Your task to perform on an android device: choose inbox layout in the gmail app Image 0: 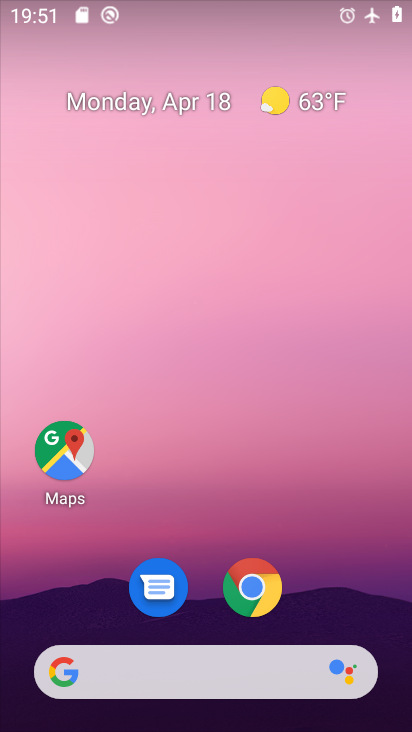
Step 0: drag from (327, 598) to (231, 91)
Your task to perform on an android device: choose inbox layout in the gmail app Image 1: 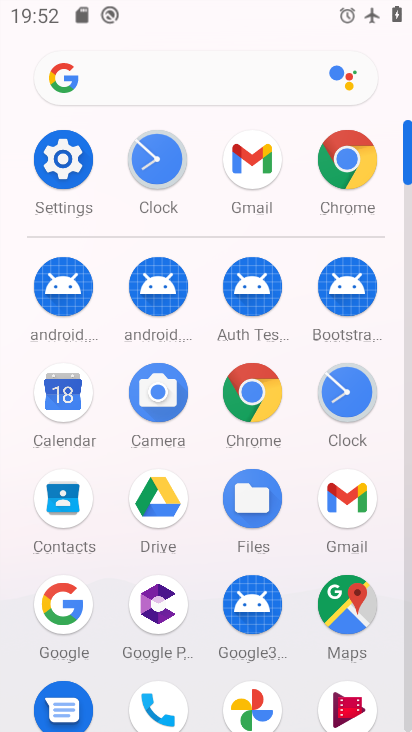
Step 1: click (348, 505)
Your task to perform on an android device: choose inbox layout in the gmail app Image 2: 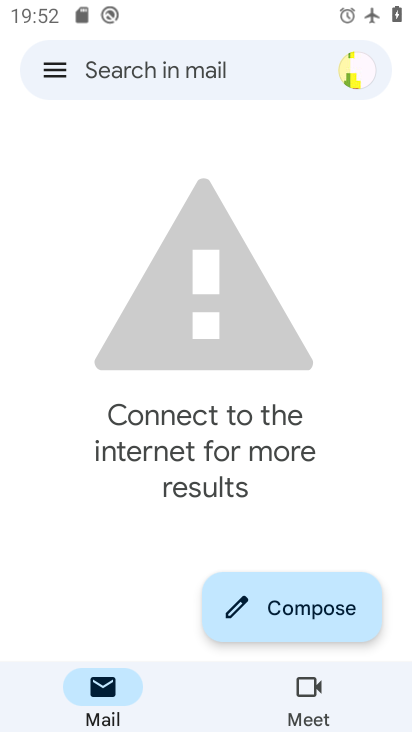
Step 2: click (34, 75)
Your task to perform on an android device: choose inbox layout in the gmail app Image 3: 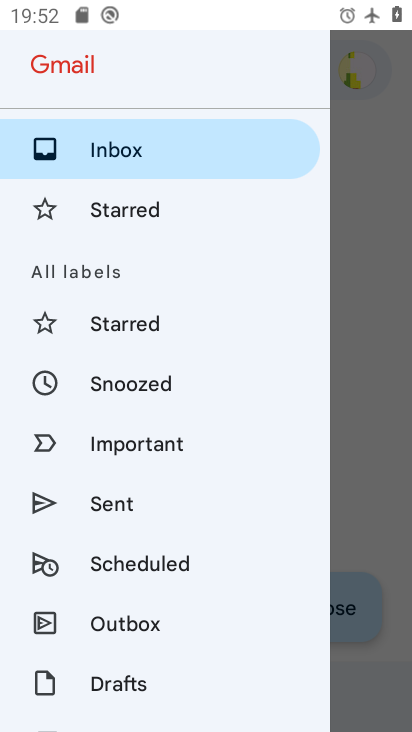
Step 3: click (164, 150)
Your task to perform on an android device: choose inbox layout in the gmail app Image 4: 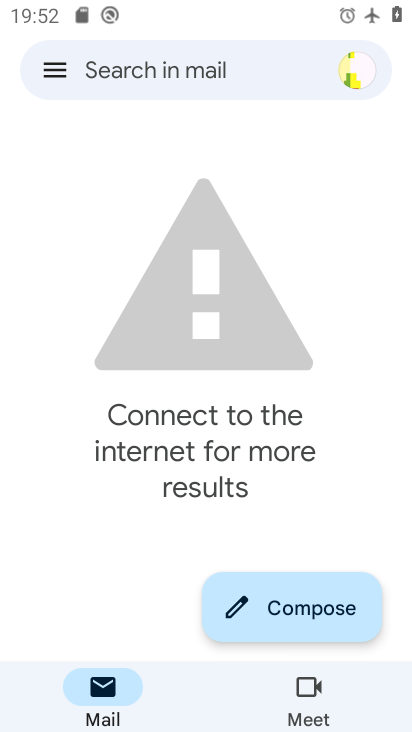
Step 4: task complete